Your task to perform on an android device: open chrome and create a bookmark for the current page Image 0: 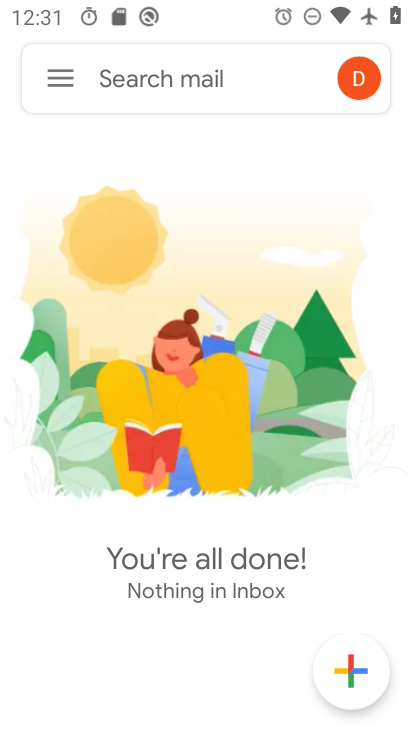
Step 0: press home button
Your task to perform on an android device: open chrome and create a bookmark for the current page Image 1: 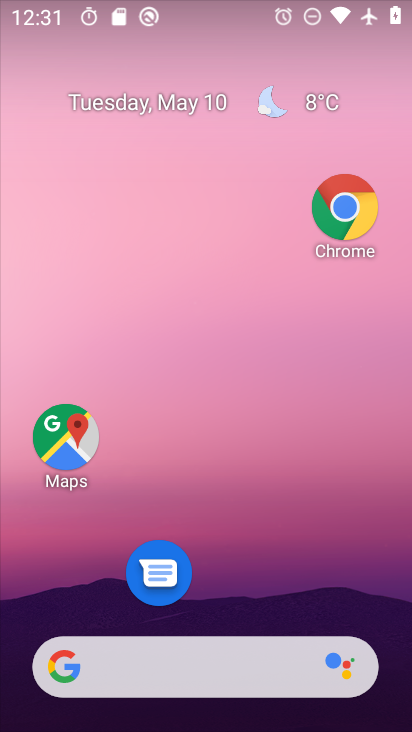
Step 1: drag from (286, 545) to (243, 64)
Your task to perform on an android device: open chrome and create a bookmark for the current page Image 2: 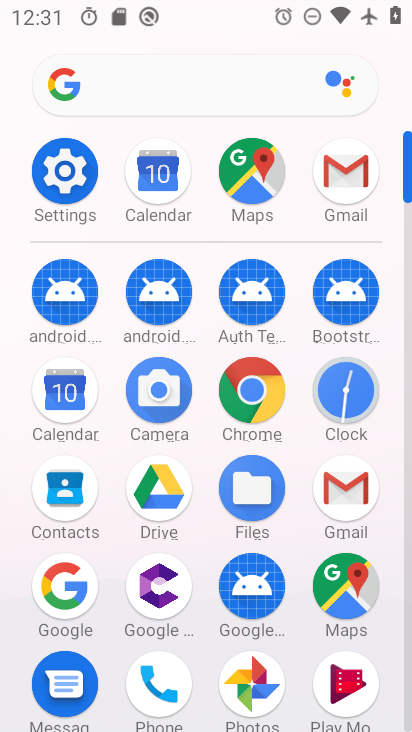
Step 2: click (245, 402)
Your task to perform on an android device: open chrome and create a bookmark for the current page Image 3: 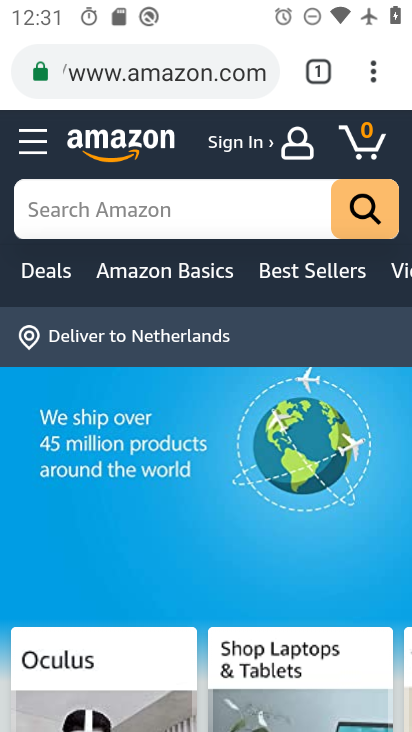
Step 3: click (367, 73)
Your task to perform on an android device: open chrome and create a bookmark for the current page Image 4: 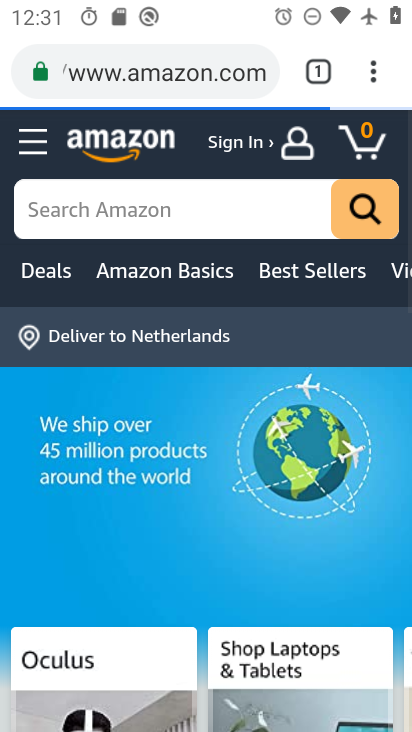
Step 4: task complete